Your task to perform on an android device: empty trash in the gmail app Image 0: 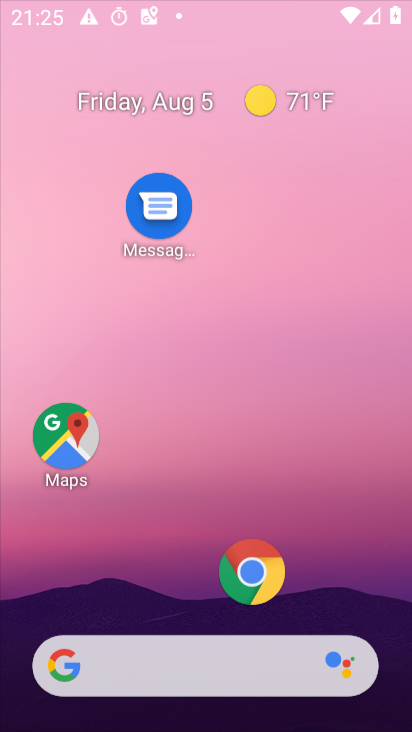
Step 0: press home button
Your task to perform on an android device: empty trash in the gmail app Image 1: 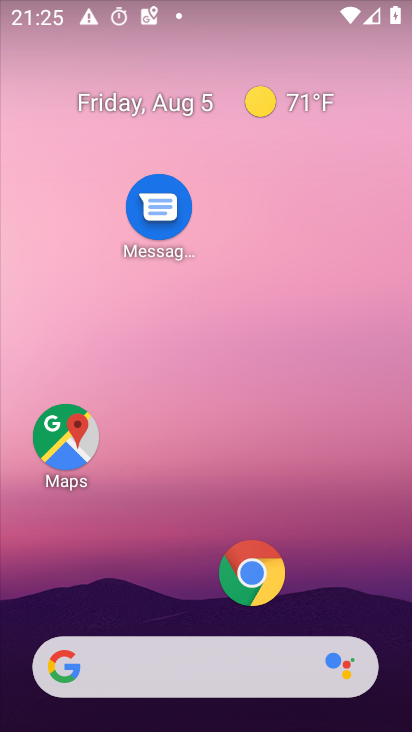
Step 1: drag from (203, 609) to (259, 83)
Your task to perform on an android device: empty trash in the gmail app Image 2: 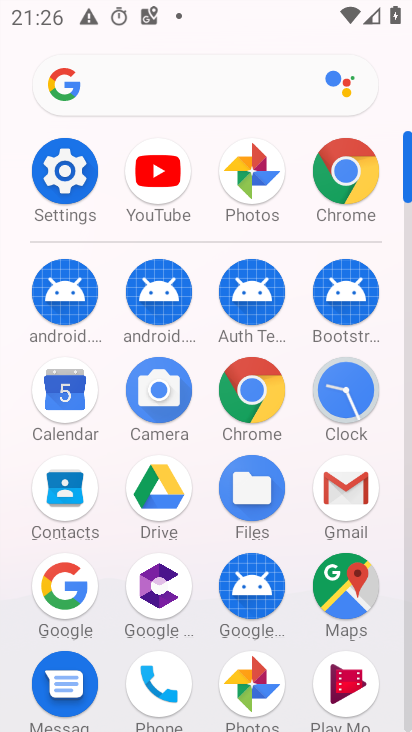
Step 2: click (336, 481)
Your task to perform on an android device: empty trash in the gmail app Image 3: 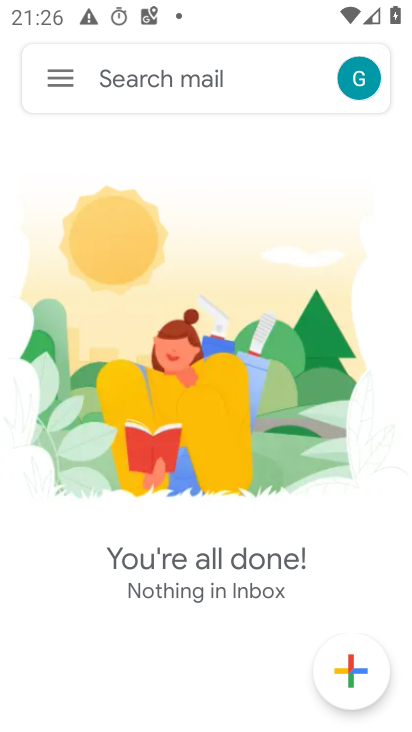
Step 3: click (48, 70)
Your task to perform on an android device: empty trash in the gmail app Image 4: 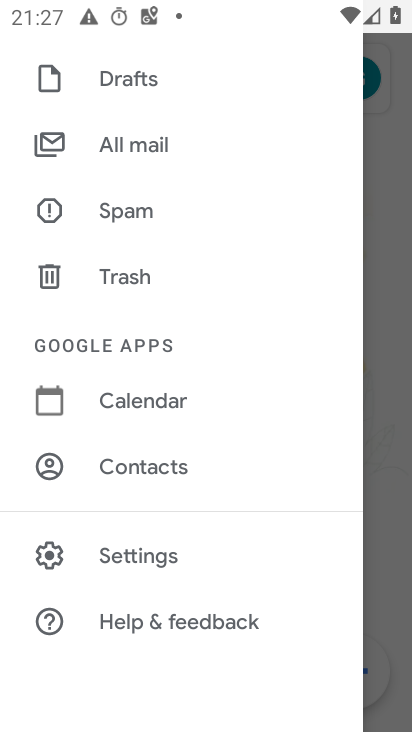
Step 4: click (67, 277)
Your task to perform on an android device: empty trash in the gmail app Image 5: 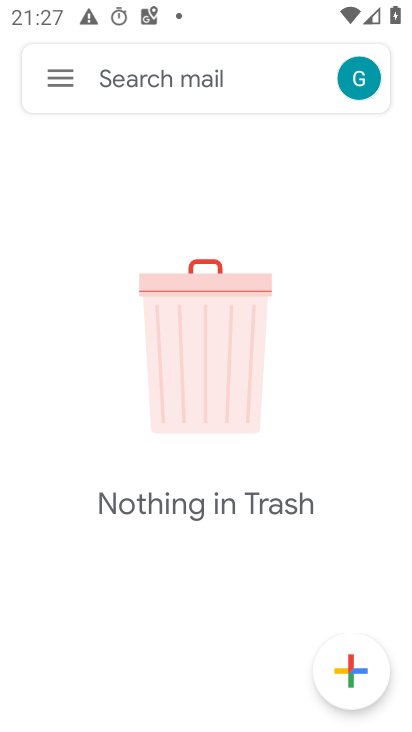
Step 5: task complete